Your task to perform on an android device: turn smart compose on in the gmail app Image 0: 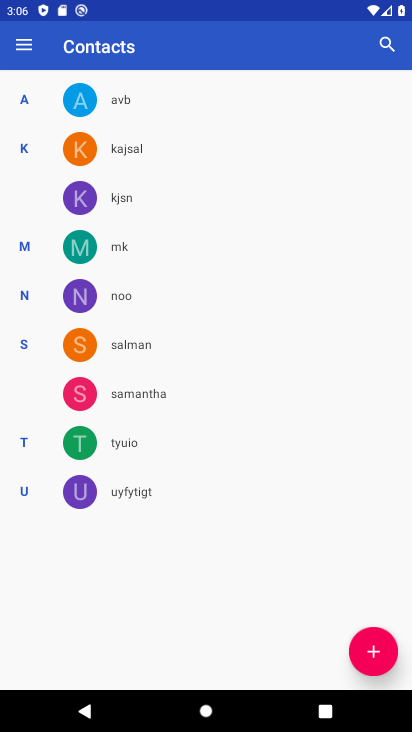
Step 0: press home button
Your task to perform on an android device: turn smart compose on in the gmail app Image 1: 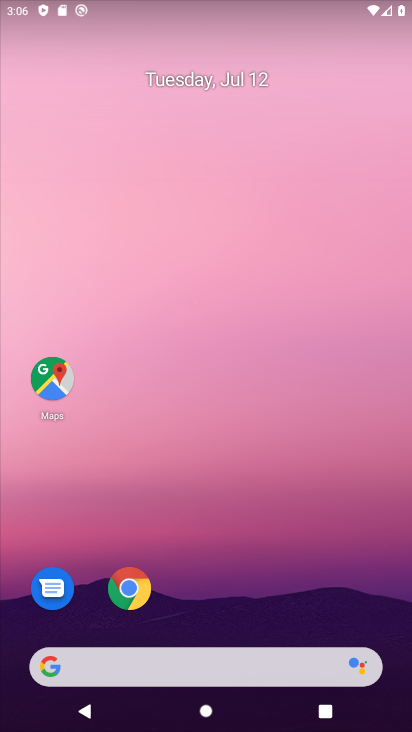
Step 1: drag from (278, 624) to (136, 24)
Your task to perform on an android device: turn smart compose on in the gmail app Image 2: 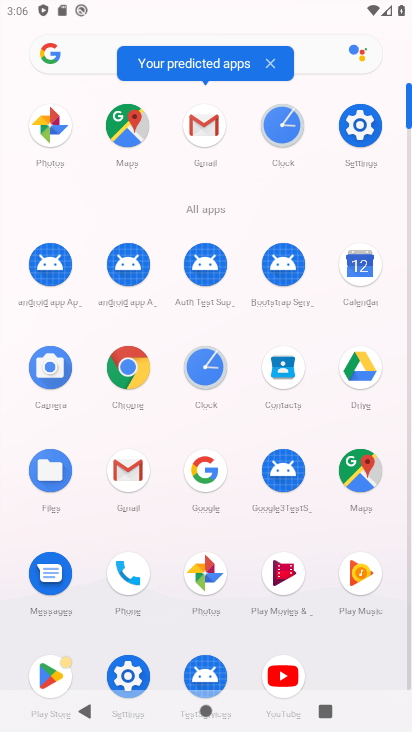
Step 2: click (197, 125)
Your task to perform on an android device: turn smart compose on in the gmail app Image 3: 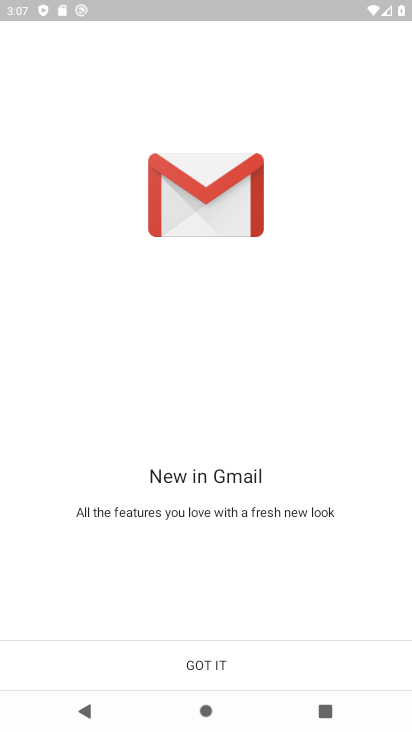
Step 3: click (238, 668)
Your task to perform on an android device: turn smart compose on in the gmail app Image 4: 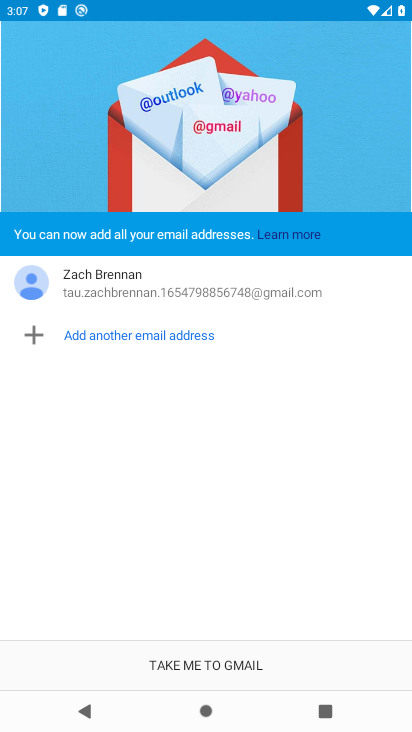
Step 4: click (232, 665)
Your task to perform on an android device: turn smart compose on in the gmail app Image 5: 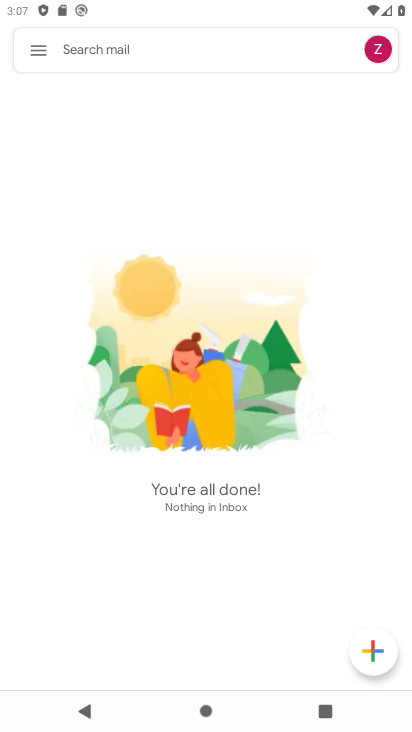
Step 5: click (30, 57)
Your task to perform on an android device: turn smart compose on in the gmail app Image 6: 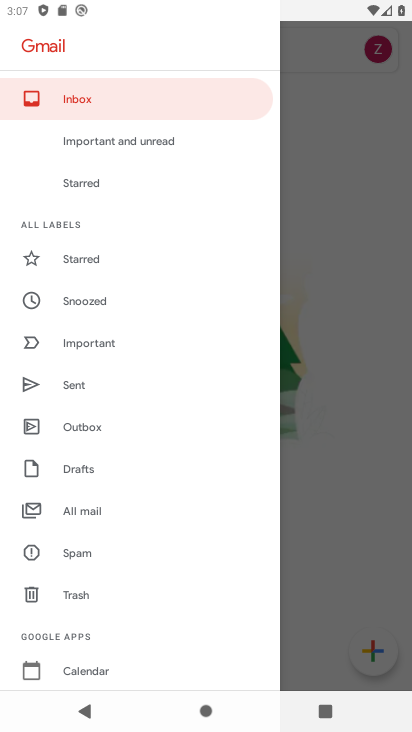
Step 6: drag from (201, 655) to (127, 259)
Your task to perform on an android device: turn smart compose on in the gmail app Image 7: 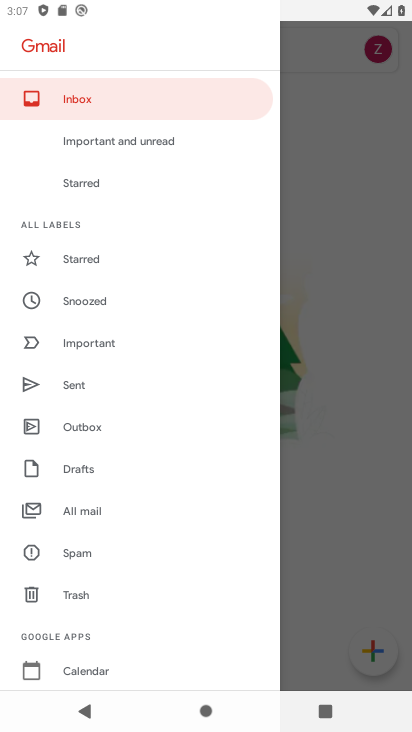
Step 7: drag from (100, 634) to (81, 266)
Your task to perform on an android device: turn smart compose on in the gmail app Image 8: 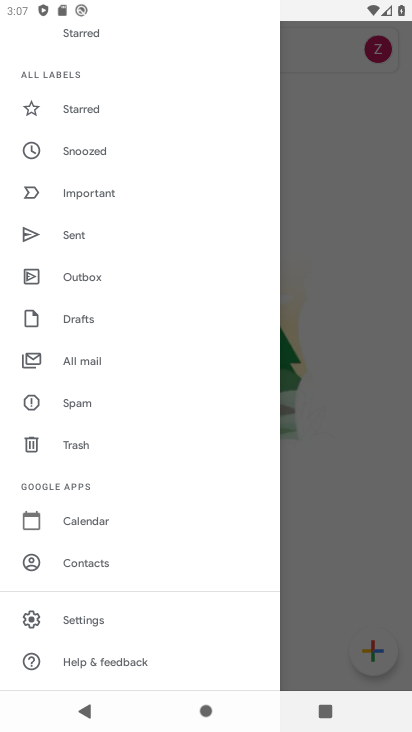
Step 8: click (94, 627)
Your task to perform on an android device: turn smart compose on in the gmail app Image 9: 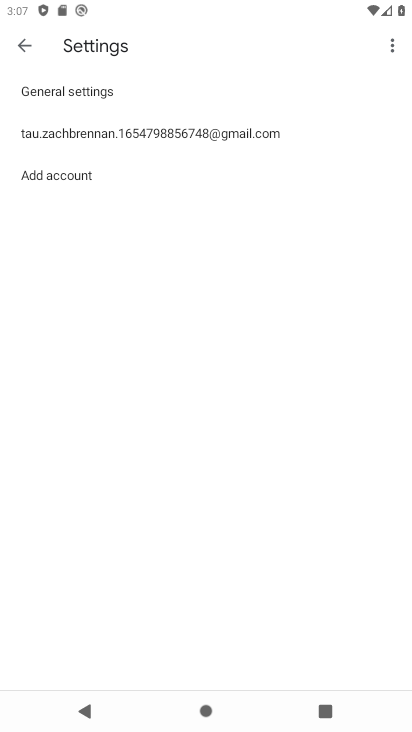
Step 9: click (167, 142)
Your task to perform on an android device: turn smart compose on in the gmail app Image 10: 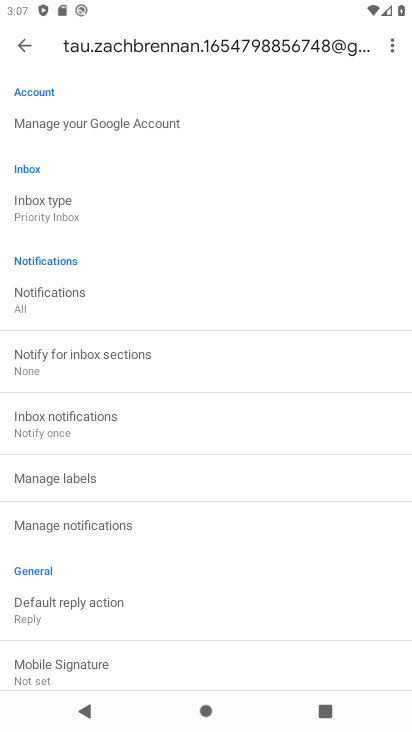
Step 10: task complete